Your task to perform on an android device: Search for Italian restaurants on Maps Image 0: 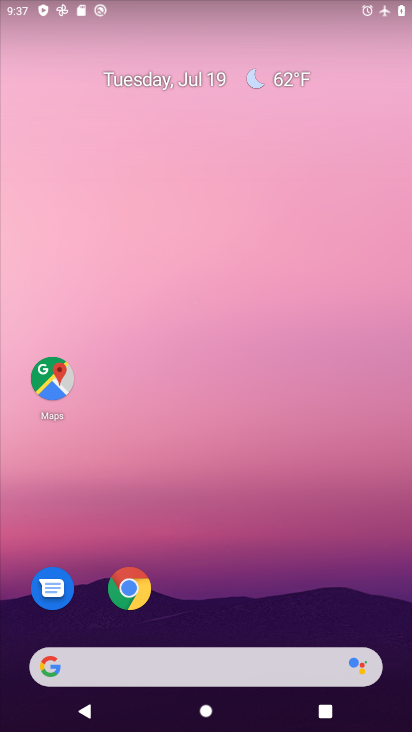
Step 0: drag from (309, 502) to (271, 152)
Your task to perform on an android device: Search for Italian restaurants on Maps Image 1: 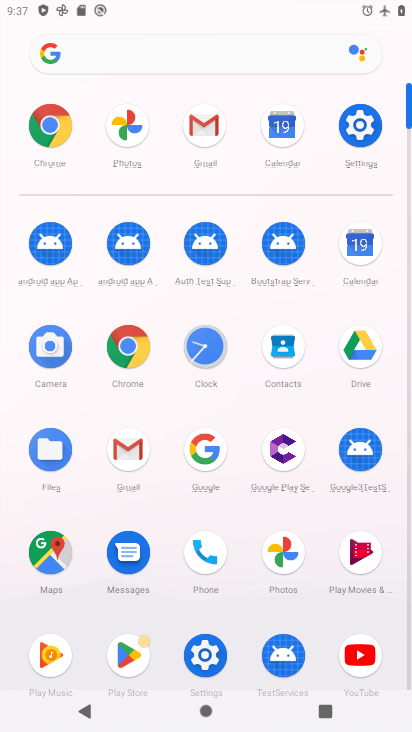
Step 1: click (41, 541)
Your task to perform on an android device: Search for Italian restaurants on Maps Image 2: 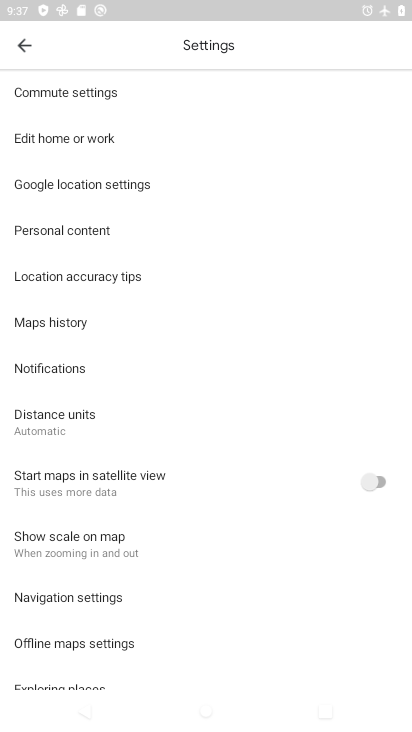
Step 2: click (26, 52)
Your task to perform on an android device: Search for Italian restaurants on Maps Image 3: 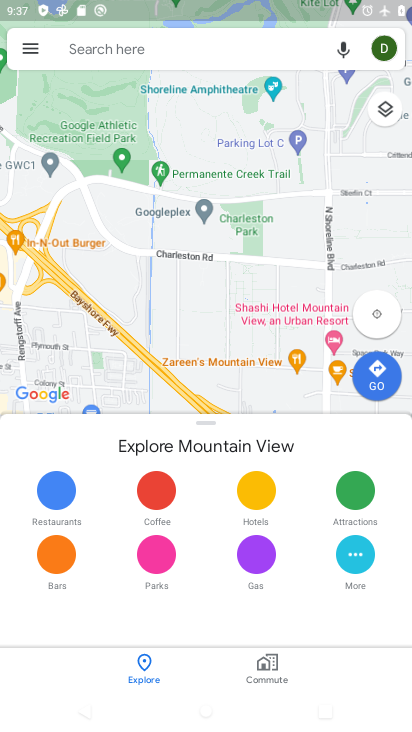
Step 3: click (197, 45)
Your task to perform on an android device: Search for Italian restaurants on Maps Image 4: 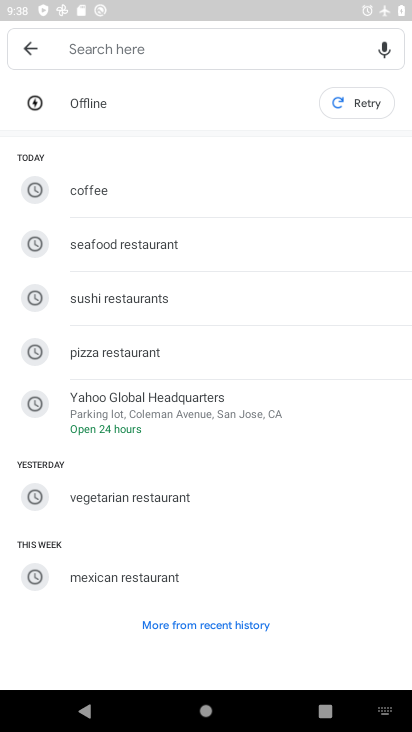
Step 4: type "Italian restaurants"
Your task to perform on an android device: Search for Italian restaurants on Maps Image 5: 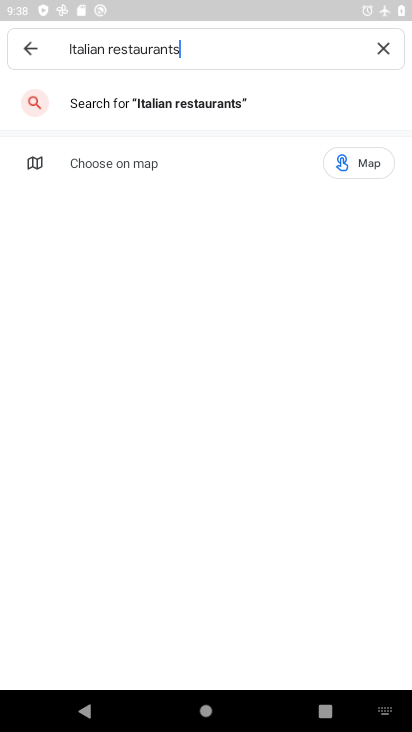
Step 5: click (207, 98)
Your task to perform on an android device: Search for Italian restaurants on Maps Image 6: 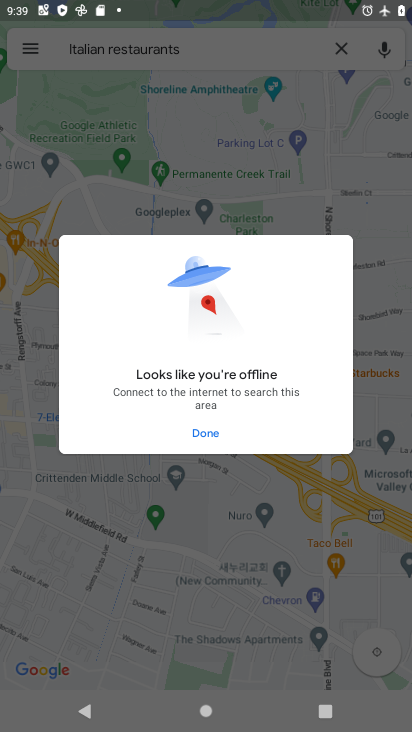
Step 6: task complete